Your task to perform on an android device: change alarm snooze length Image 0: 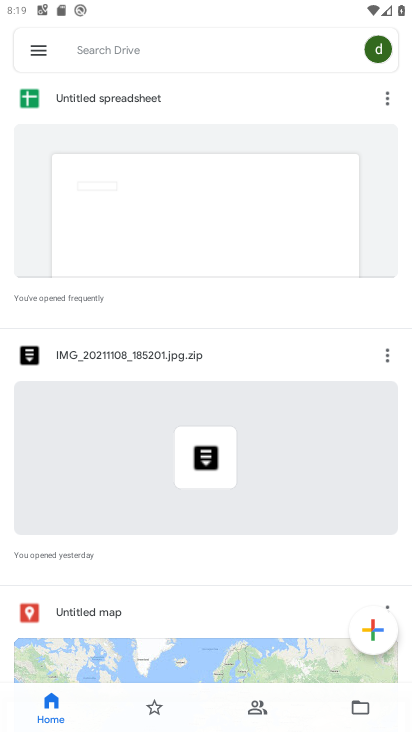
Step 0: press home button
Your task to perform on an android device: change alarm snooze length Image 1: 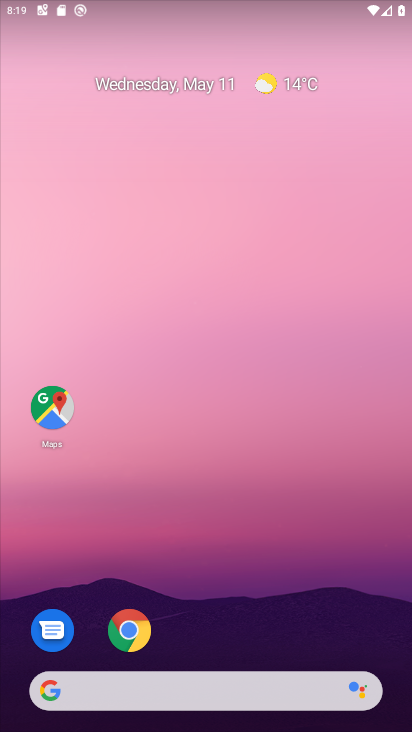
Step 1: drag from (110, 416) to (258, 48)
Your task to perform on an android device: change alarm snooze length Image 2: 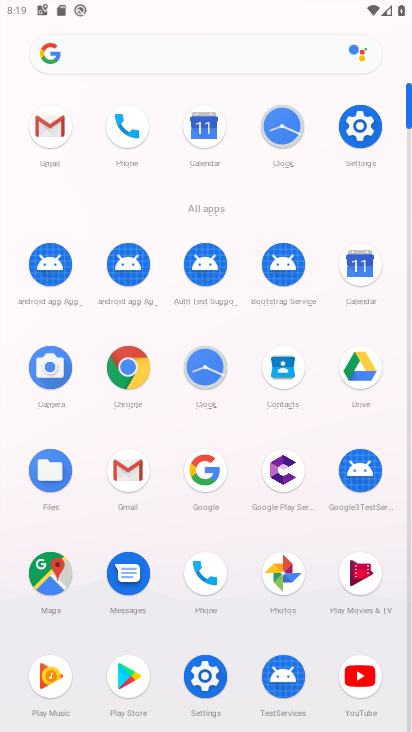
Step 2: click (274, 131)
Your task to perform on an android device: change alarm snooze length Image 3: 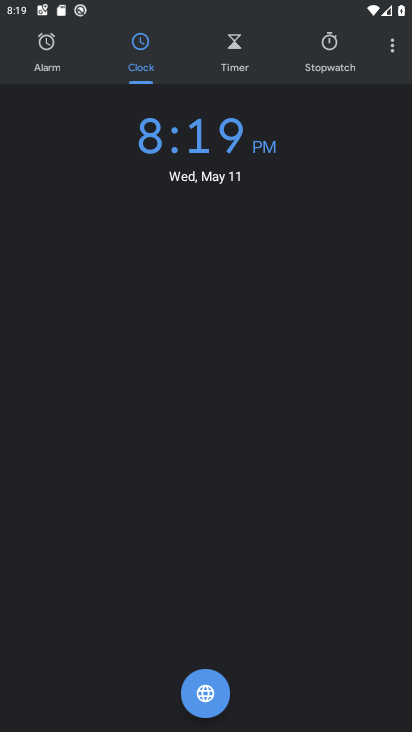
Step 3: click (383, 44)
Your task to perform on an android device: change alarm snooze length Image 4: 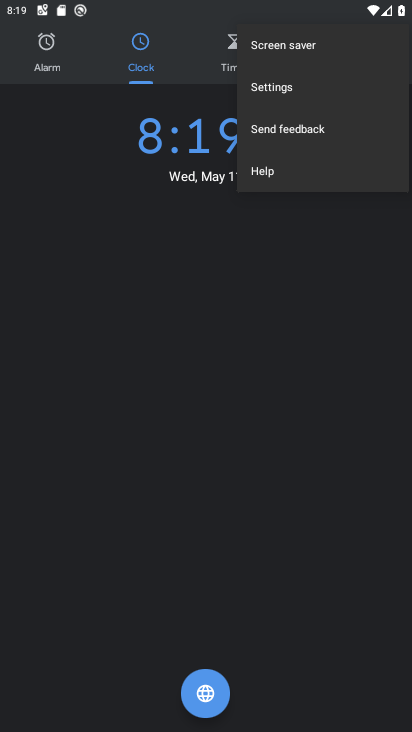
Step 4: click (307, 85)
Your task to perform on an android device: change alarm snooze length Image 5: 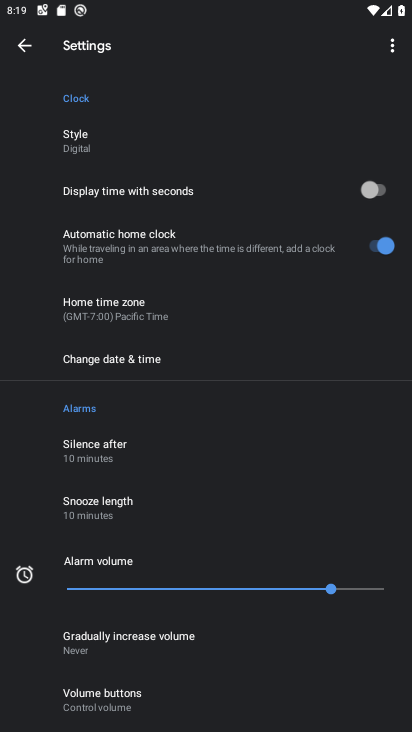
Step 5: click (65, 509)
Your task to perform on an android device: change alarm snooze length Image 6: 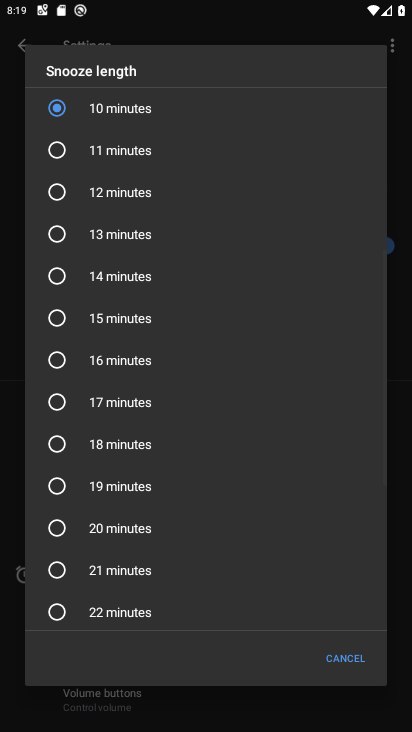
Step 6: click (153, 154)
Your task to perform on an android device: change alarm snooze length Image 7: 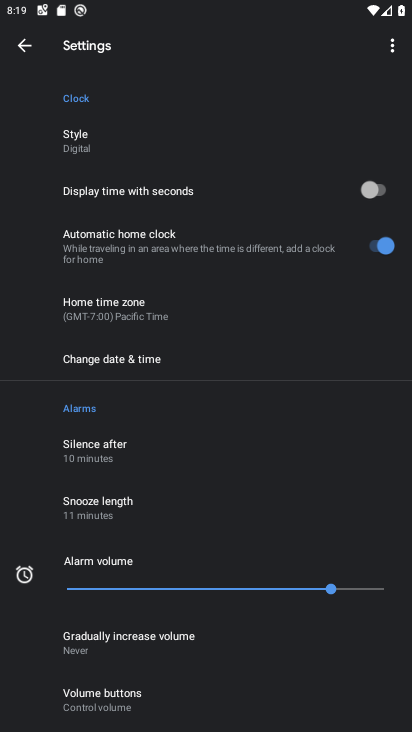
Step 7: task complete